Your task to perform on an android device: Open Android settings Image 0: 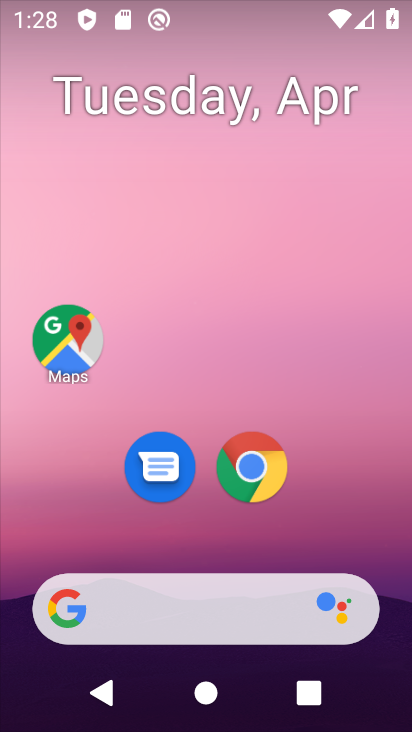
Step 0: drag from (384, 530) to (379, 68)
Your task to perform on an android device: Open Android settings Image 1: 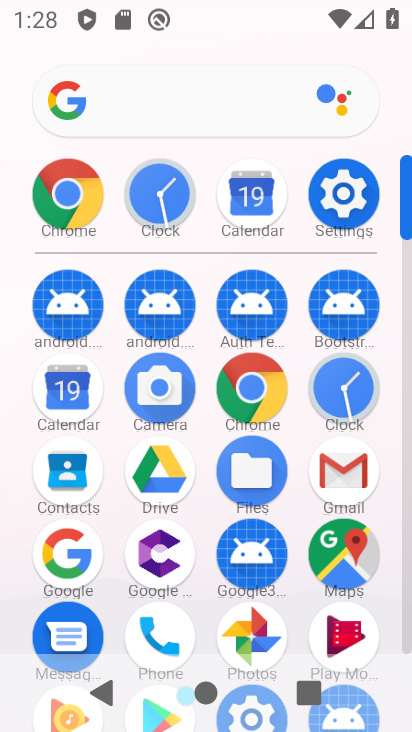
Step 1: click (337, 199)
Your task to perform on an android device: Open Android settings Image 2: 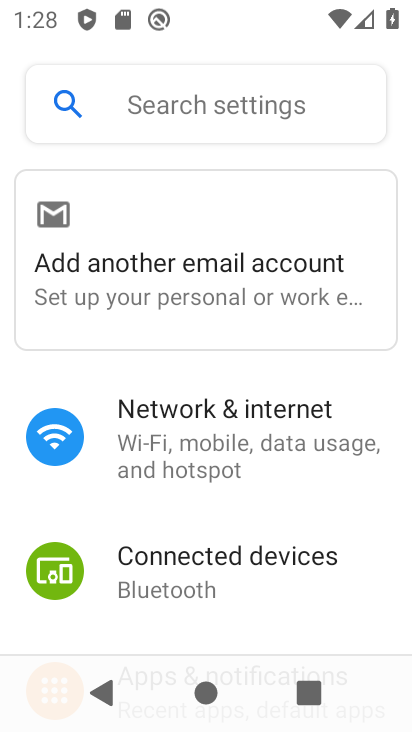
Step 2: drag from (383, 592) to (364, 374)
Your task to perform on an android device: Open Android settings Image 3: 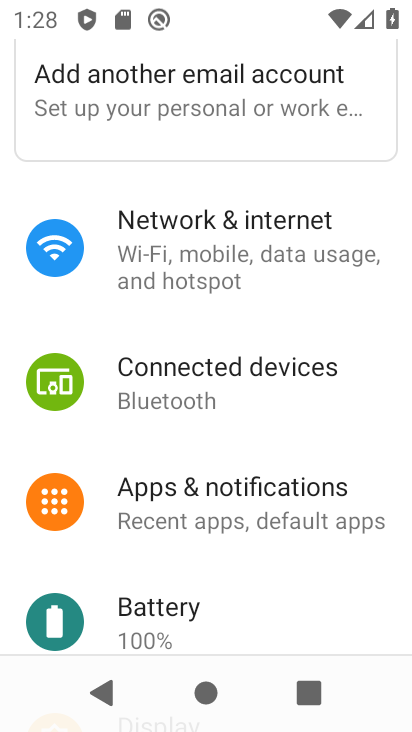
Step 3: drag from (363, 595) to (379, 372)
Your task to perform on an android device: Open Android settings Image 4: 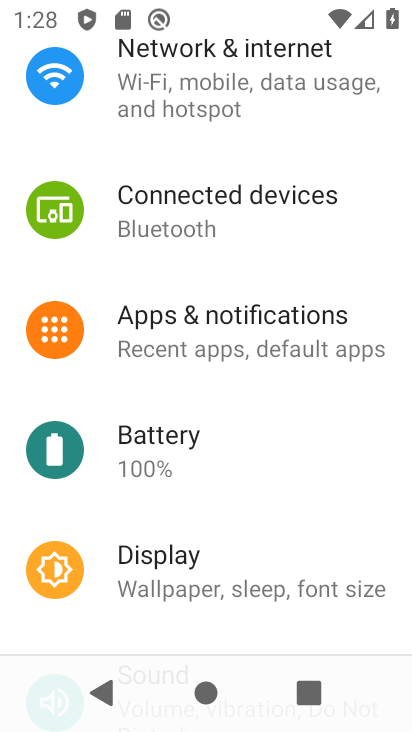
Step 4: drag from (363, 523) to (382, 308)
Your task to perform on an android device: Open Android settings Image 5: 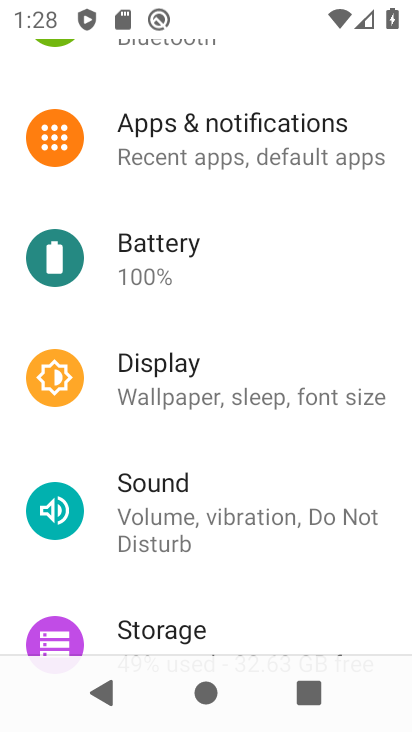
Step 5: drag from (390, 610) to (395, 347)
Your task to perform on an android device: Open Android settings Image 6: 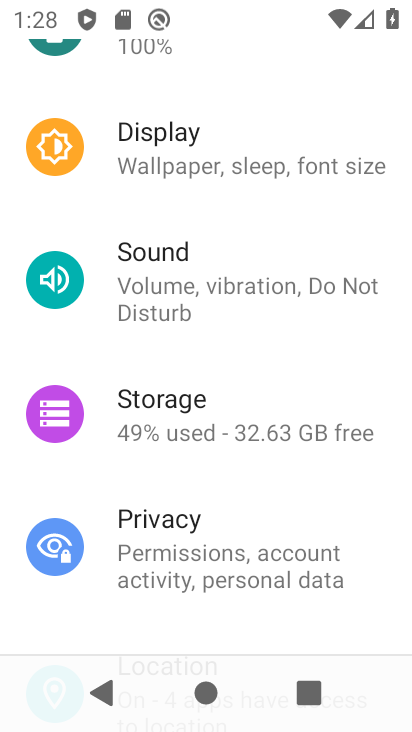
Step 6: drag from (374, 587) to (381, 381)
Your task to perform on an android device: Open Android settings Image 7: 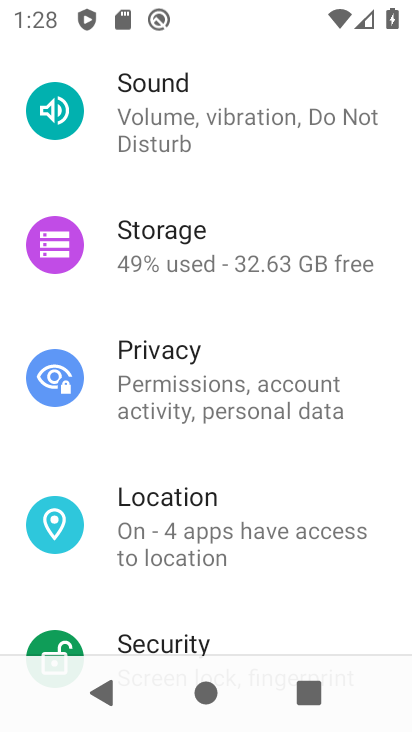
Step 7: drag from (388, 592) to (373, 419)
Your task to perform on an android device: Open Android settings Image 8: 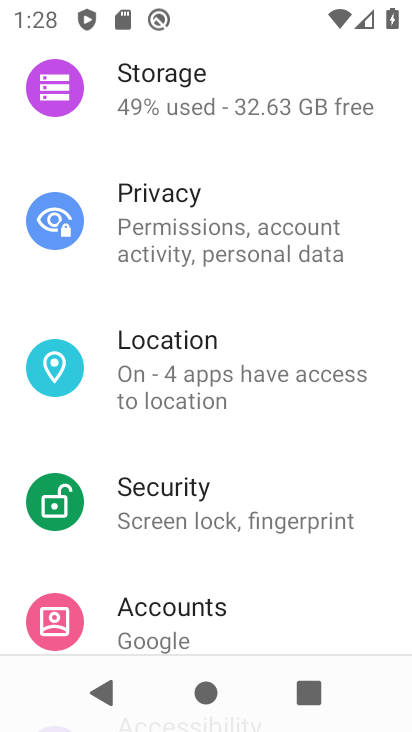
Step 8: drag from (374, 568) to (382, 390)
Your task to perform on an android device: Open Android settings Image 9: 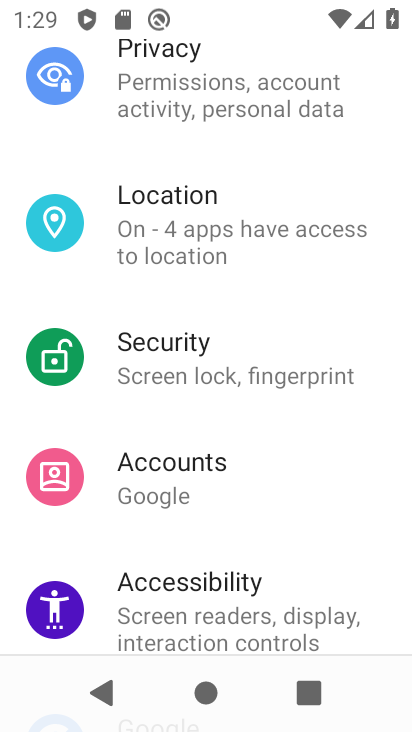
Step 9: drag from (377, 602) to (380, 416)
Your task to perform on an android device: Open Android settings Image 10: 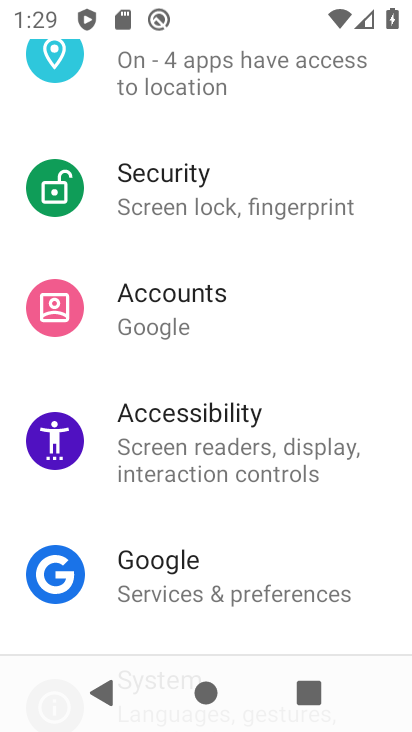
Step 10: drag from (370, 569) to (387, 318)
Your task to perform on an android device: Open Android settings Image 11: 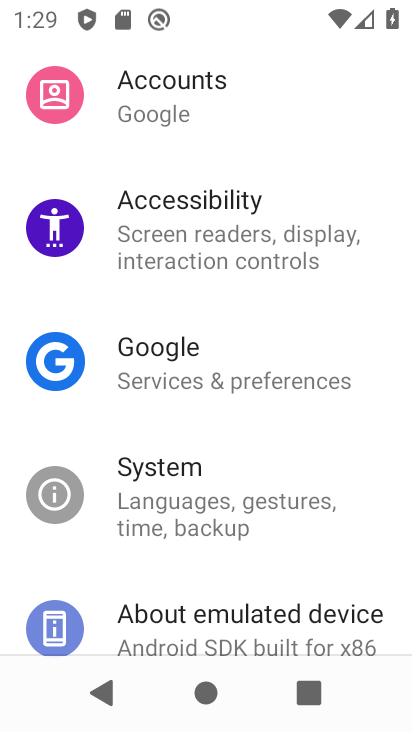
Step 11: click (132, 493)
Your task to perform on an android device: Open Android settings Image 12: 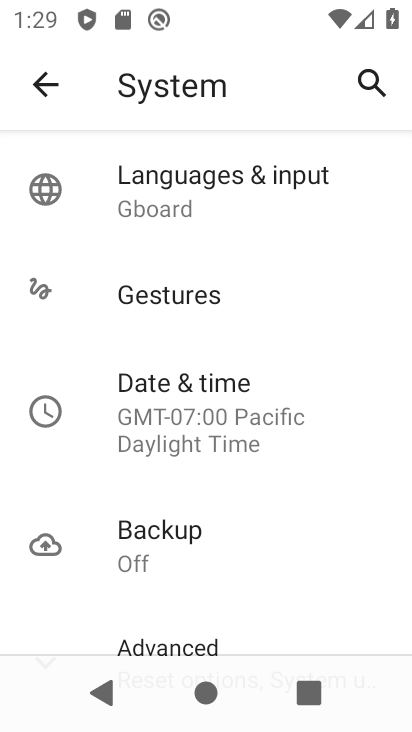
Step 12: drag from (345, 525) to (352, 287)
Your task to perform on an android device: Open Android settings Image 13: 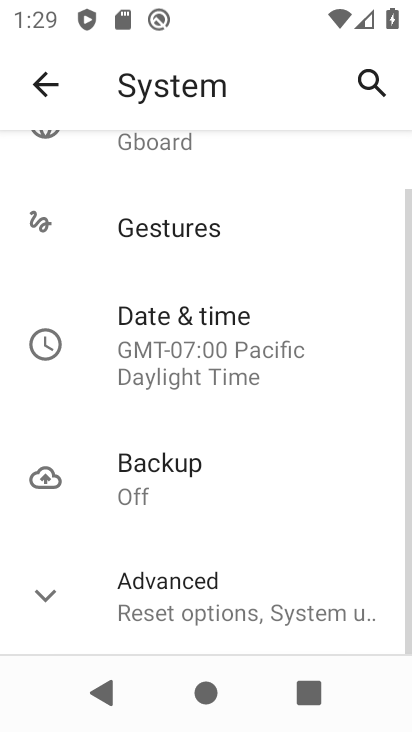
Step 13: click (166, 603)
Your task to perform on an android device: Open Android settings Image 14: 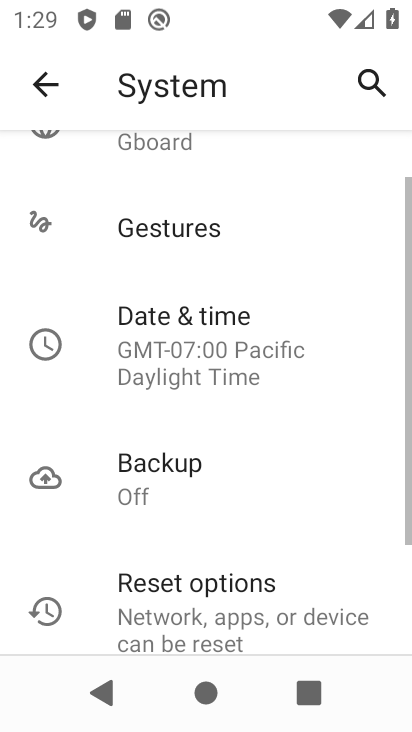
Step 14: drag from (329, 539) to (347, 218)
Your task to perform on an android device: Open Android settings Image 15: 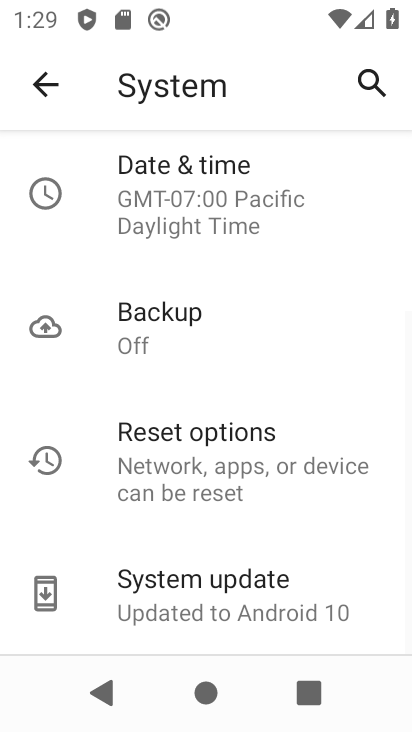
Step 15: click (199, 597)
Your task to perform on an android device: Open Android settings Image 16: 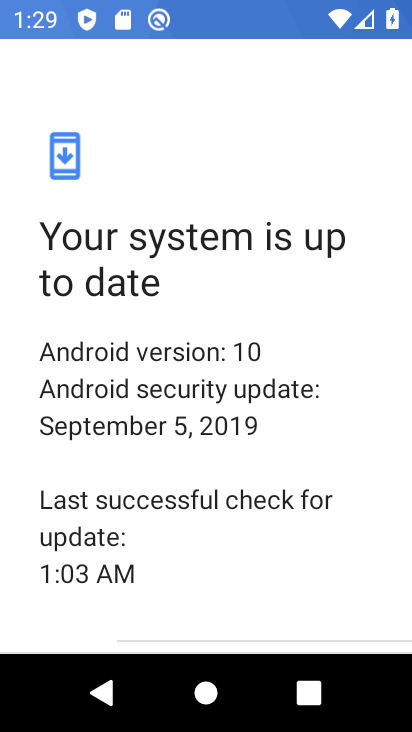
Step 16: task complete